Your task to perform on an android device: Add logitech g pro to the cart on walmart.com, then select checkout. Image 0: 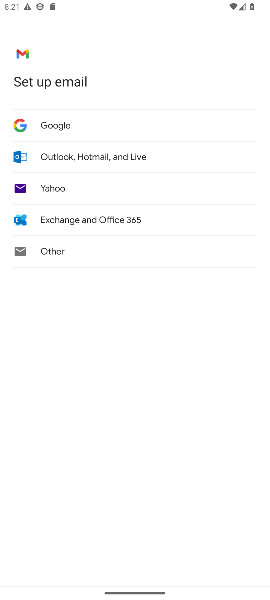
Step 0: press home button
Your task to perform on an android device: Add logitech g pro to the cart on walmart.com, then select checkout. Image 1: 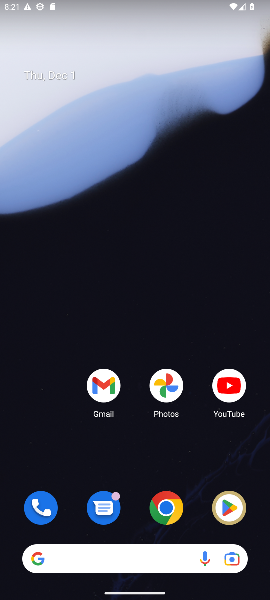
Step 1: click (165, 514)
Your task to perform on an android device: Add logitech g pro to the cart on walmart.com, then select checkout. Image 2: 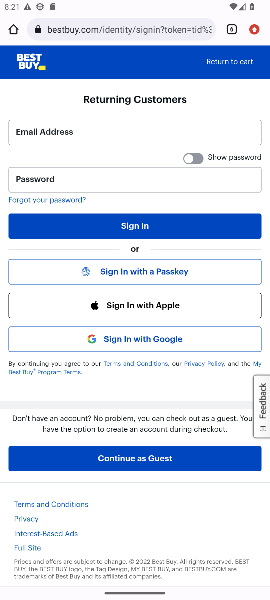
Step 2: click (231, 33)
Your task to perform on an android device: Add logitech g pro to the cart on walmart.com, then select checkout. Image 3: 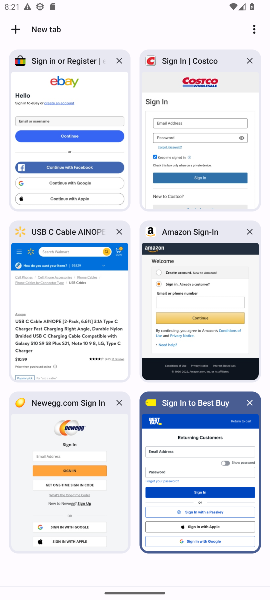
Step 3: click (36, 291)
Your task to perform on an android device: Add logitech g pro to the cart on walmart.com, then select checkout. Image 4: 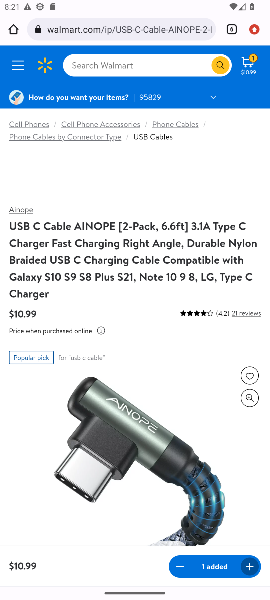
Step 4: click (142, 66)
Your task to perform on an android device: Add logitech g pro to the cart on walmart.com, then select checkout. Image 5: 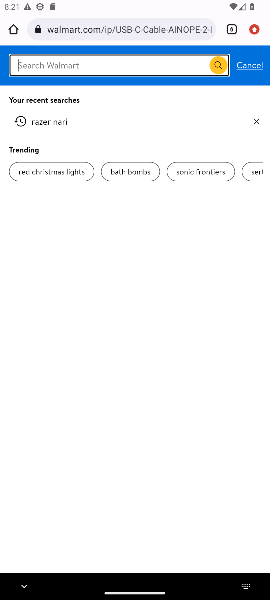
Step 5: type "logitech g pro"
Your task to perform on an android device: Add logitech g pro to the cart on walmart.com, then select checkout. Image 6: 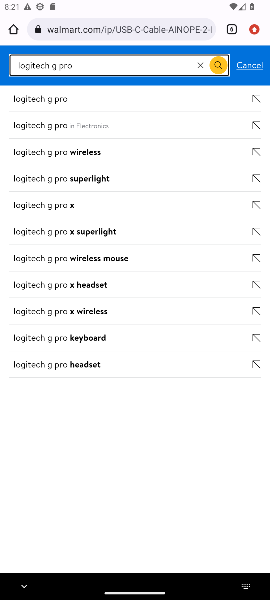
Step 6: click (219, 68)
Your task to perform on an android device: Add logitech g pro to the cart on walmart.com, then select checkout. Image 7: 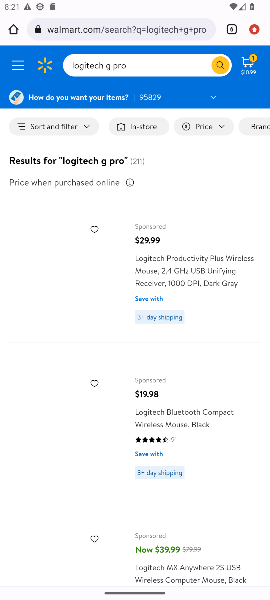
Step 7: click (183, 282)
Your task to perform on an android device: Add logitech g pro to the cart on walmart.com, then select checkout. Image 8: 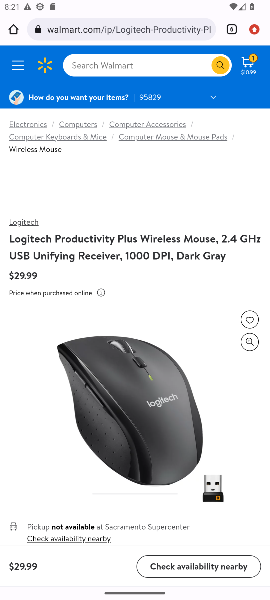
Step 8: drag from (115, 537) to (125, 250)
Your task to perform on an android device: Add logitech g pro to the cart on walmart.com, then select checkout. Image 9: 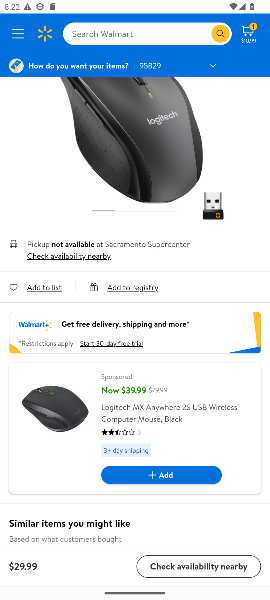
Step 9: drag from (68, 520) to (95, 82)
Your task to perform on an android device: Add logitech g pro to the cart on walmart.com, then select checkout. Image 10: 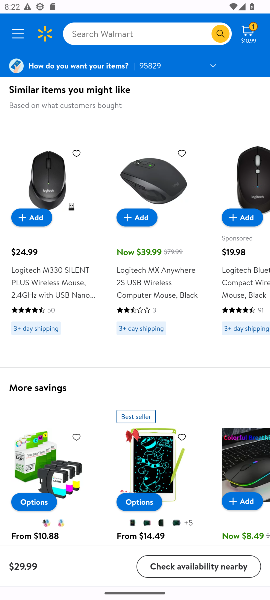
Step 10: drag from (114, 381) to (132, 91)
Your task to perform on an android device: Add logitech g pro to the cart on walmart.com, then select checkout. Image 11: 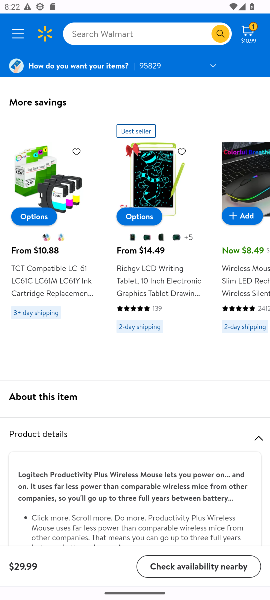
Step 11: drag from (108, 485) to (134, 109)
Your task to perform on an android device: Add logitech g pro to the cart on walmart.com, then select checkout. Image 12: 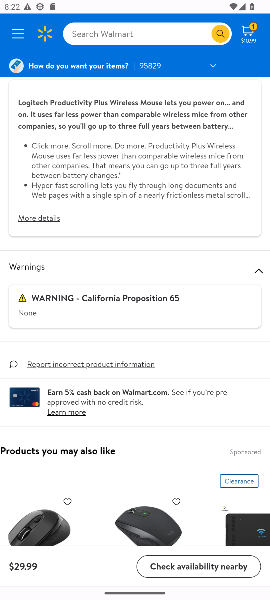
Step 12: drag from (140, 440) to (141, 65)
Your task to perform on an android device: Add logitech g pro to the cart on walmart.com, then select checkout. Image 13: 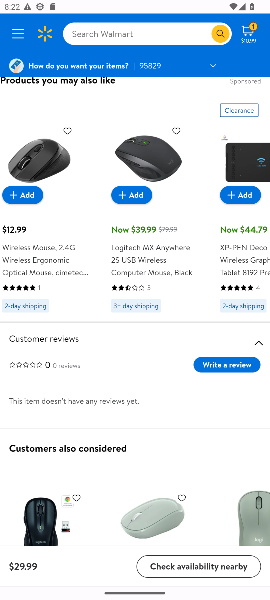
Step 13: drag from (117, 420) to (104, 108)
Your task to perform on an android device: Add logitech g pro to the cart on walmart.com, then select checkout. Image 14: 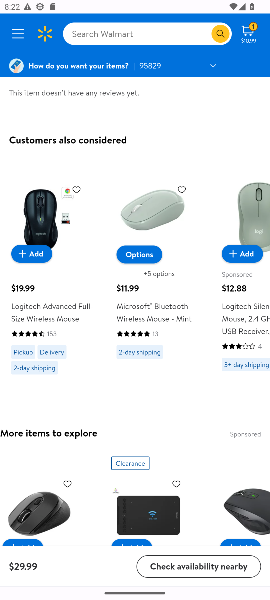
Step 14: drag from (76, 417) to (96, 165)
Your task to perform on an android device: Add logitech g pro to the cart on walmart.com, then select checkout. Image 15: 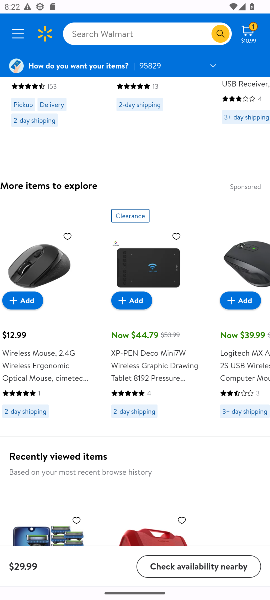
Step 15: press back button
Your task to perform on an android device: Add logitech g pro to the cart on walmart.com, then select checkout. Image 16: 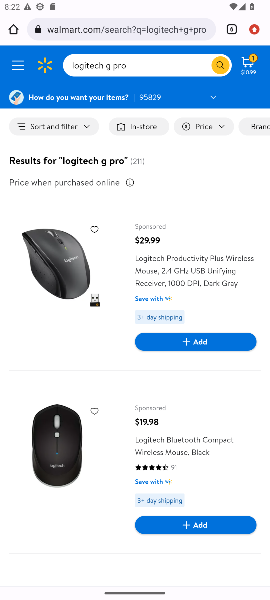
Step 16: click (212, 345)
Your task to perform on an android device: Add logitech g pro to the cart on walmart.com, then select checkout. Image 17: 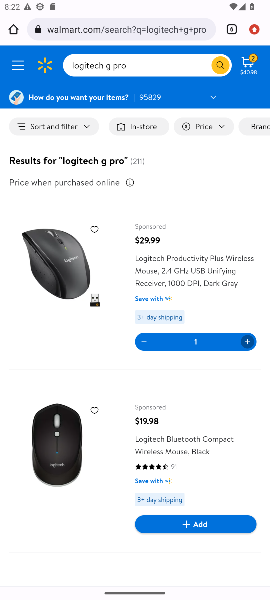
Step 17: click (249, 70)
Your task to perform on an android device: Add logitech g pro to the cart on walmart.com, then select checkout. Image 18: 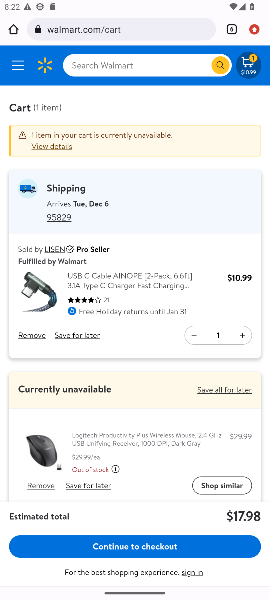
Step 18: click (81, 549)
Your task to perform on an android device: Add logitech g pro to the cart on walmart.com, then select checkout. Image 19: 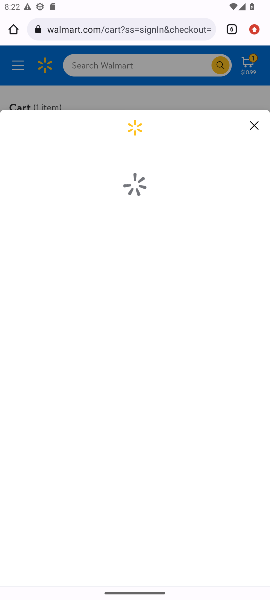
Step 19: task complete